Your task to perform on an android device: toggle priority inbox in the gmail app Image 0: 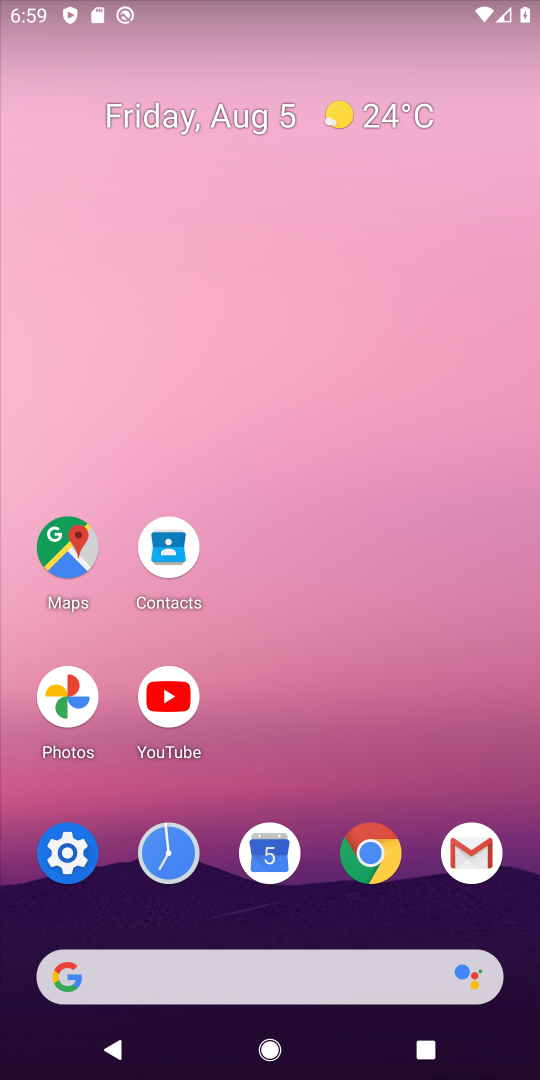
Step 0: click (467, 853)
Your task to perform on an android device: toggle priority inbox in the gmail app Image 1: 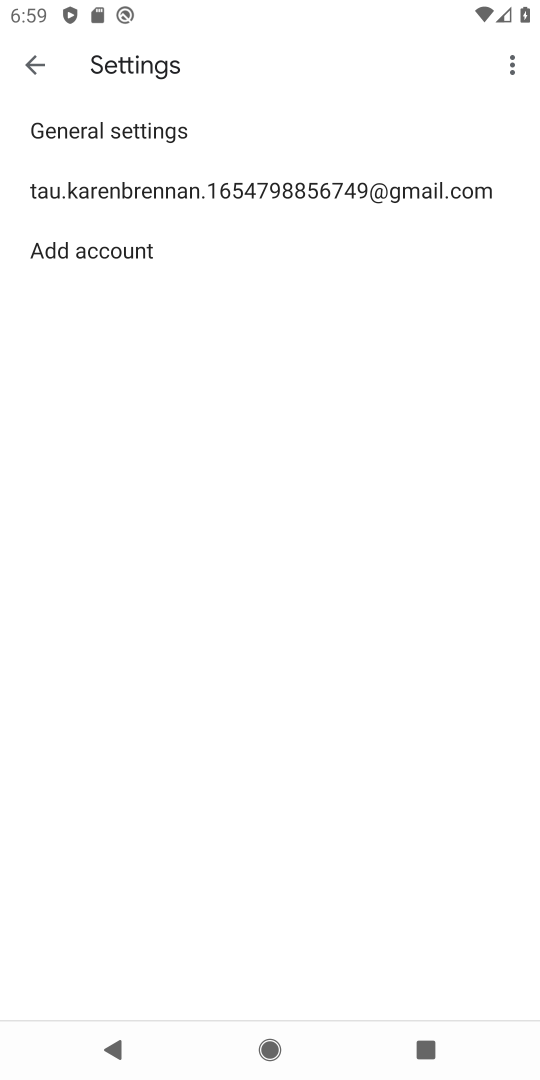
Step 1: click (82, 188)
Your task to perform on an android device: toggle priority inbox in the gmail app Image 2: 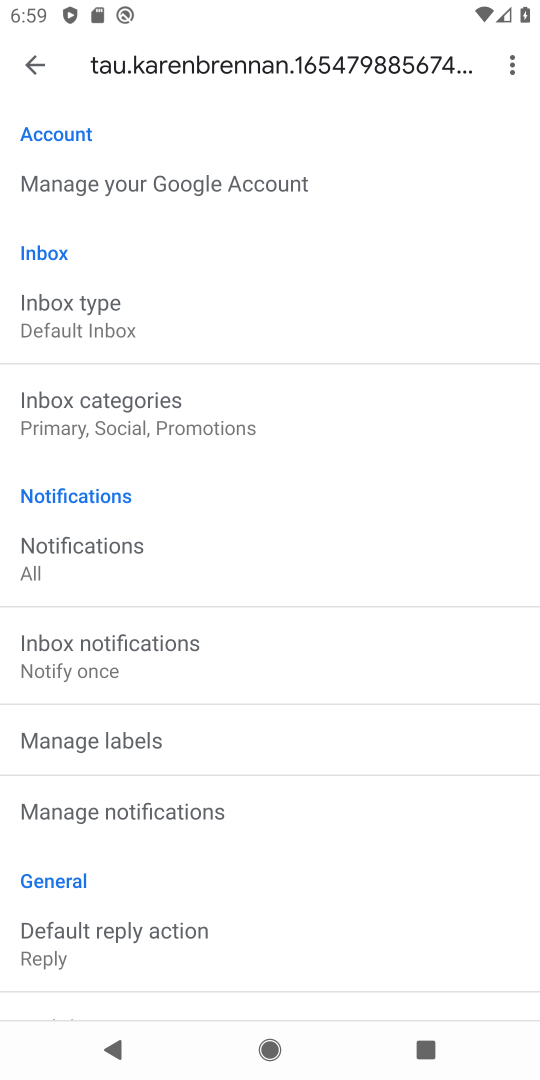
Step 2: click (95, 318)
Your task to perform on an android device: toggle priority inbox in the gmail app Image 3: 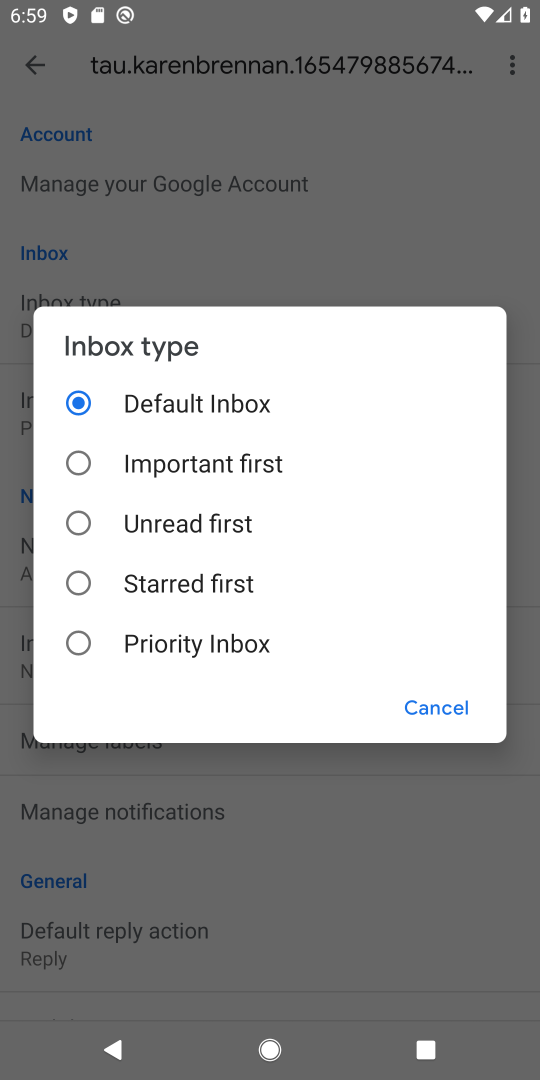
Step 3: click (80, 640)
Your task to perform on an android device: toggle priority inbox in the gmail app Image 4: 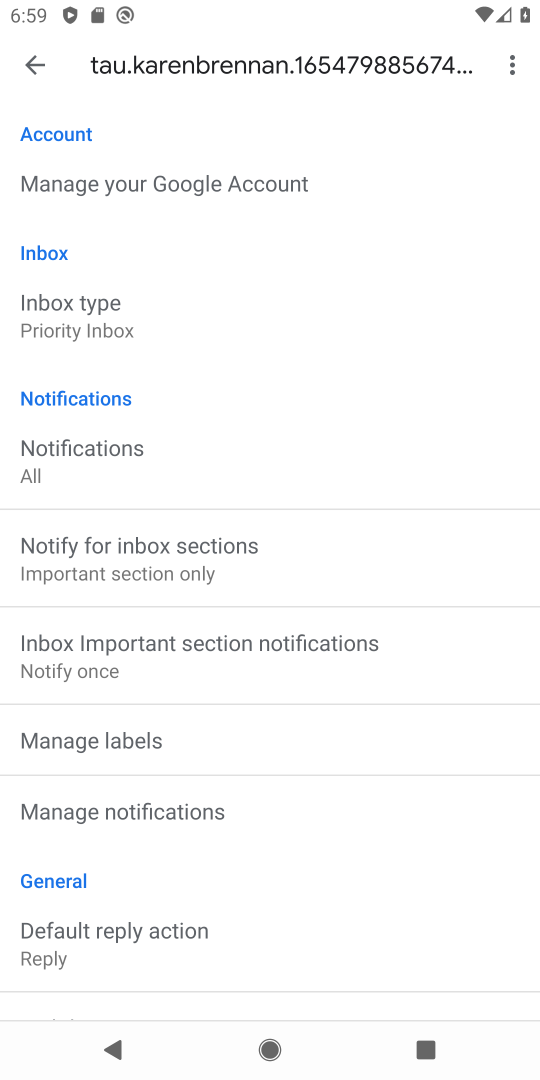
Step 4: task complete